Your task to perform on an android device: When is my next meeting? Image 0: 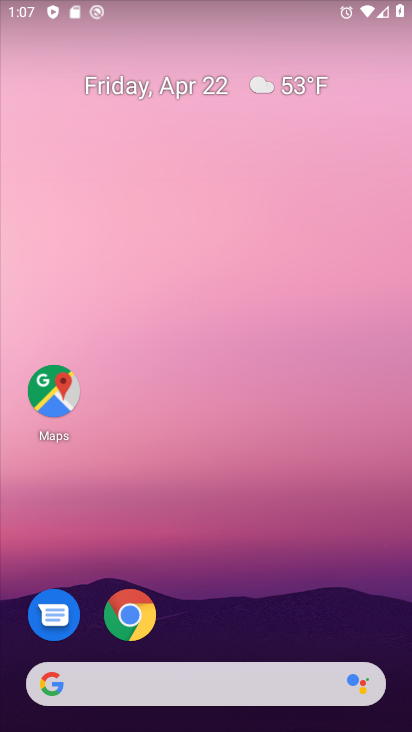
Step 0: drag from (329, 634) to (322, 13)
Your task to perform on an android device: When is my next meeting? Image 1: 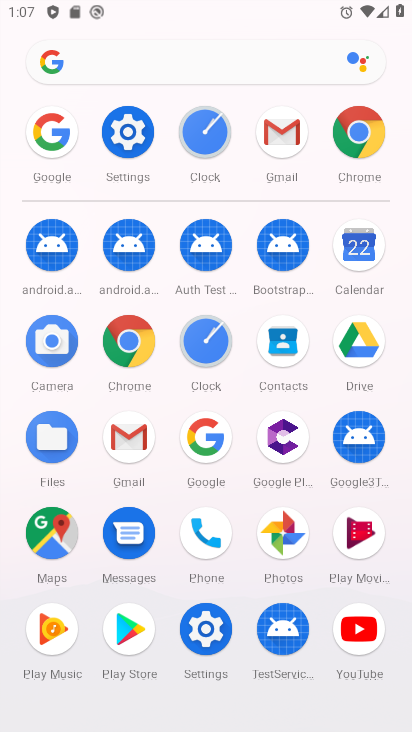
Step 1: click (352, 256)
Your task to perform on an android device: When is my next meeting? Image 2: 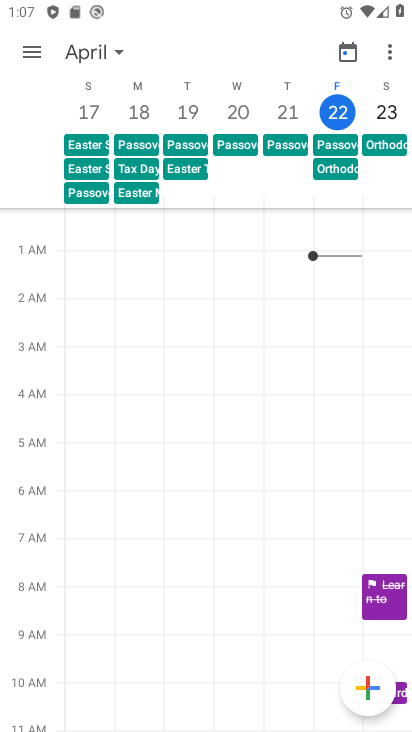
Step 2: click (119, 53)
Your task to perform on an android device: When is my next meeting? Image 3: 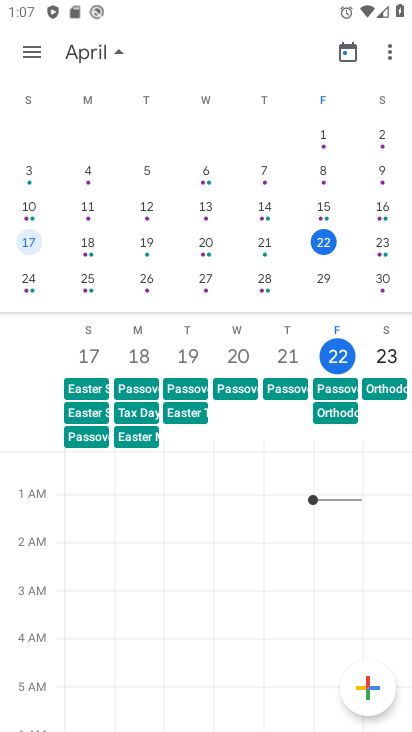
Step 3: click (32, 51)
Your task to perform on an android device: When is my next meeting? Image 4: 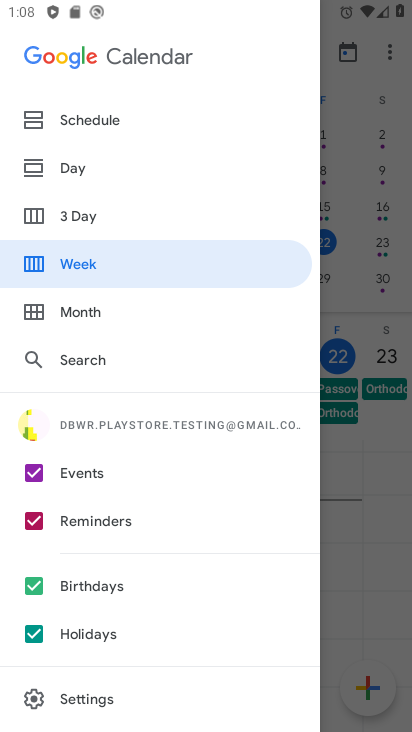
Step 4: click (26, 525)
Your task to perform on an android device: When is my next meeting? Image 5: 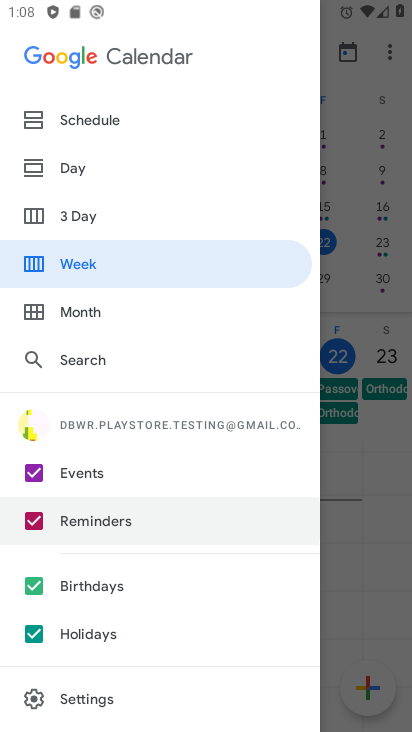
Step 5: click (35, 589)
Your task to perform on an android device: When is my next meeting? Image 6: 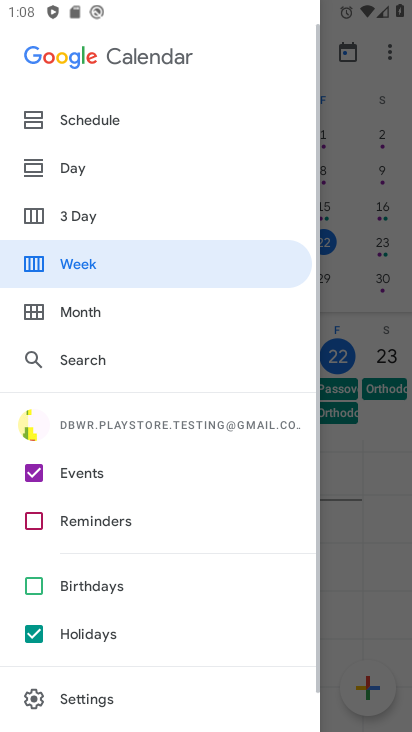
Step 6: click (38, 632)
Your task to perform on an android device: When is my next meeting? Image 7: 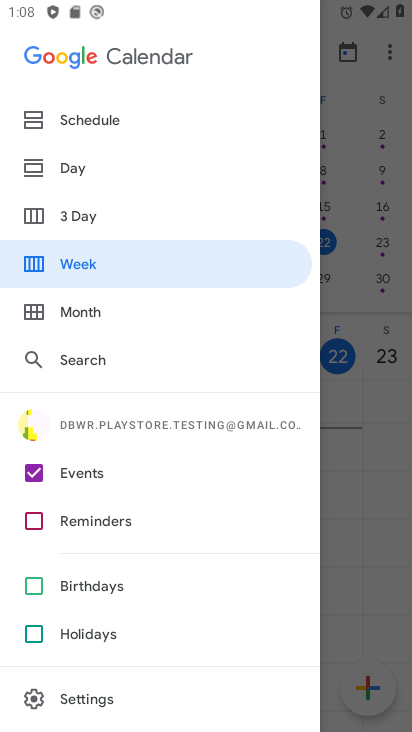
Step 7: click (49, 266)
Your task to perform on an android device: When is my next meeting? Image 8: 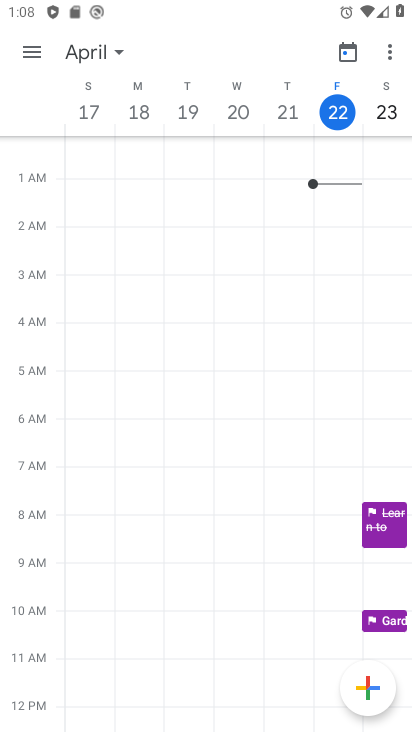
Step 8: drag from (313, 400) to (104, 416)
Your task to perform on an android device: When is my next meeting? Image 9: 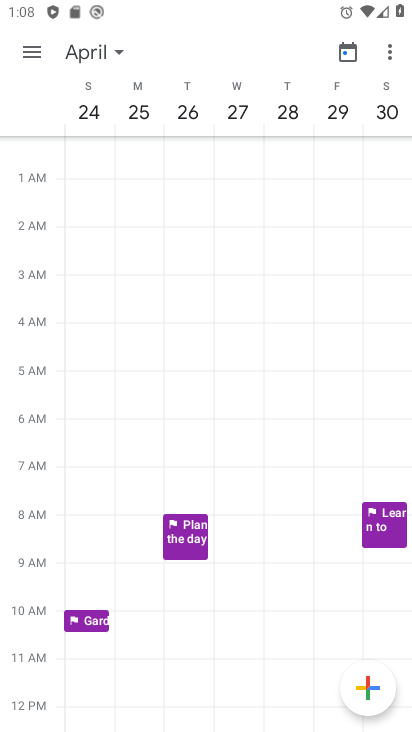
Step 9: drag from (134, 439) to (403, 450)
Your task to perform on an android device: When is my next meeting? Image 10: 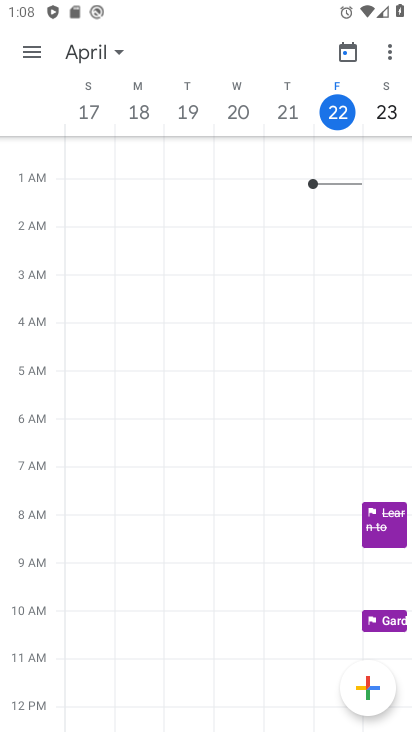
Step 10: click (380, 526)
Your task to perform on an android device: When is my next meeting? Image 11: 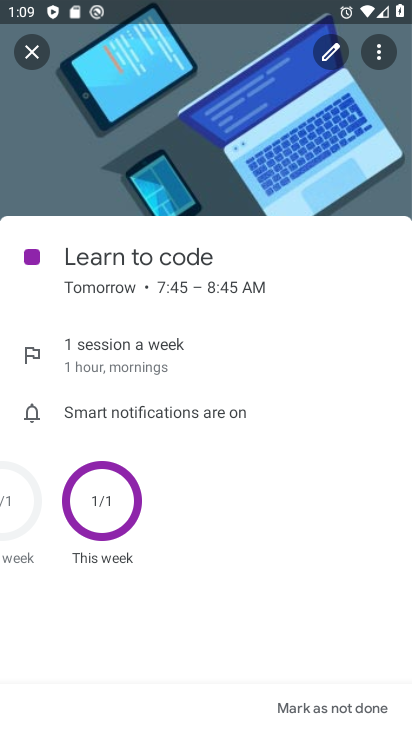
Step 11: task complete